Your task to perform on an android device: Open battery settings Image 0: 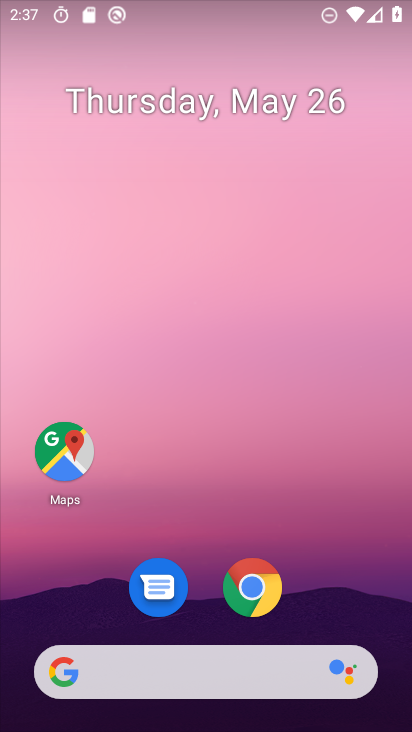
Step 0: drag from (329, 460) to (334, 133)
Your task to perform on an android device: Open battery settings Image 1: 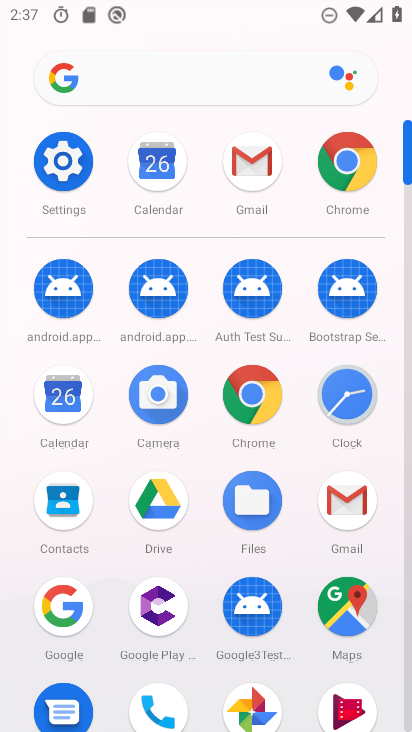
Step 1: click (71, 170)
Your task to perform on an android device: Open battery settings Image 2: 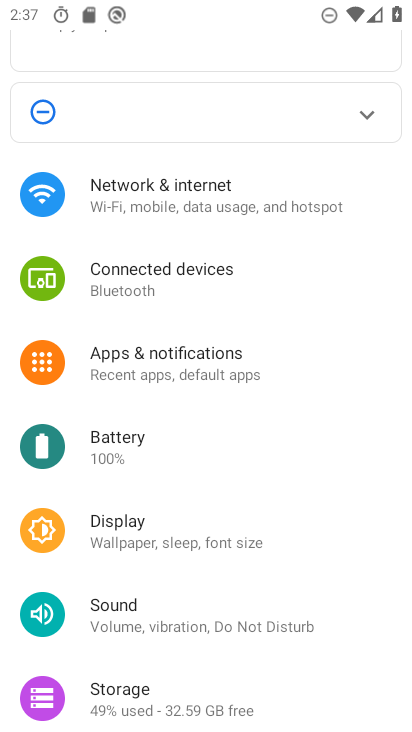
Step 2: drag from (227, 629) to (230, 515)
Your task to perform on an android device: Open battery settings Image 3: 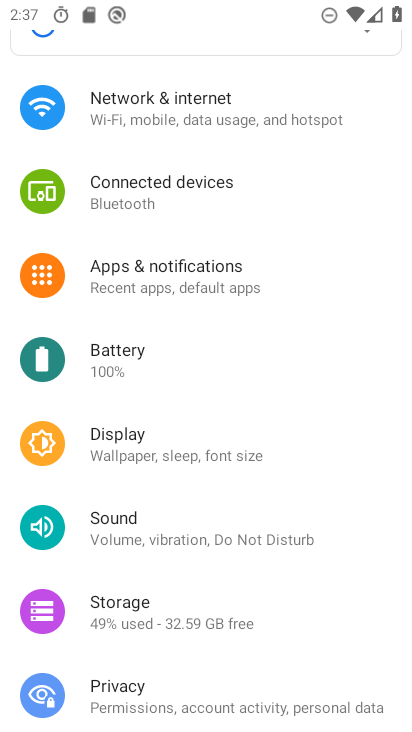
Step 3: click (145, 361)
Your task to perform on an android device: Open battery settings Image 4: 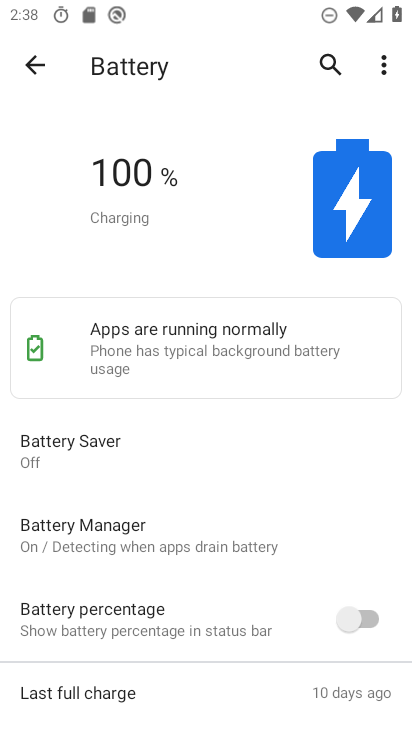
Step 4: task complete